Your task to perform on an android device: turn off sleep mode Image 0: 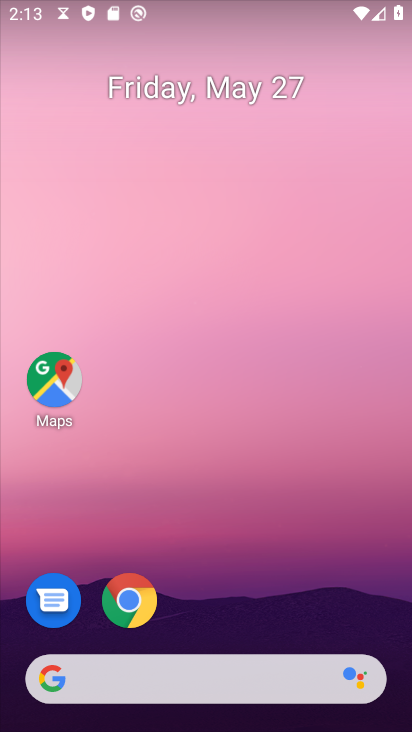
Step 0: drag from (253, 542) to (237, 4)
Your task to perform on an android device: turn off sleep mode Image 1: 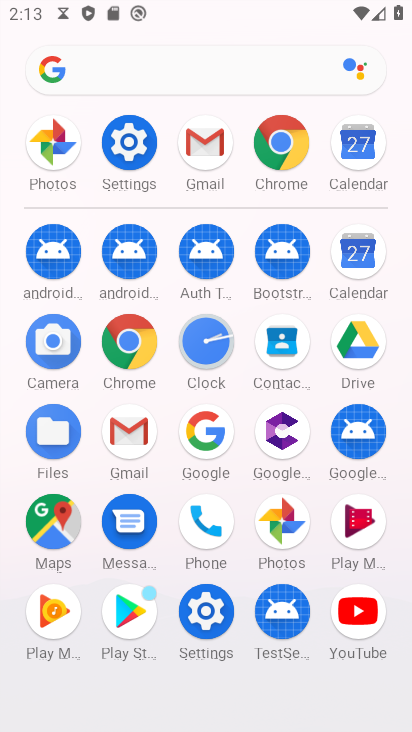
Step 1: drag from (14, 563) to (26, 216)
Your task to perform on an android device: turn off sleep mode Image 2: 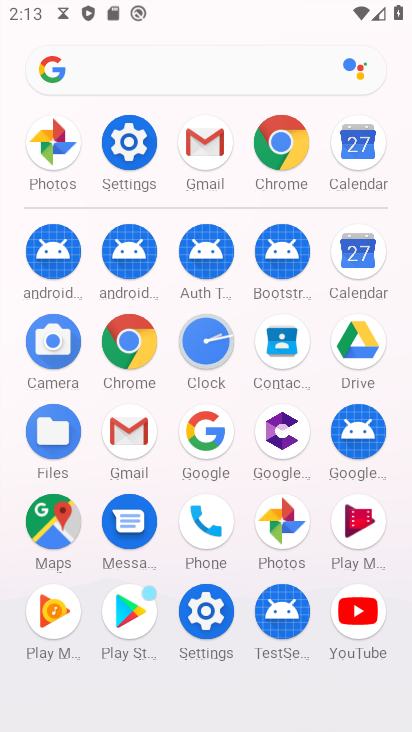
Step 2: click (205, 608)
Your task to perform on an android device: turn off sleep mode Image 3: 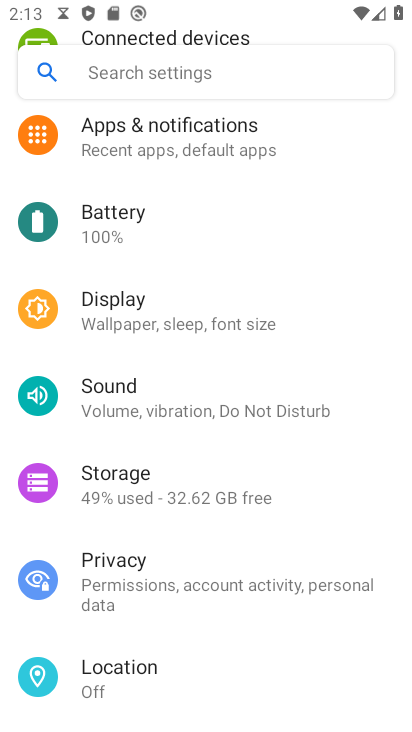
Step 3: drag from (297, 188) to (290, 628)
Your task to perform on an android device: turn off sleep mode Image 4: 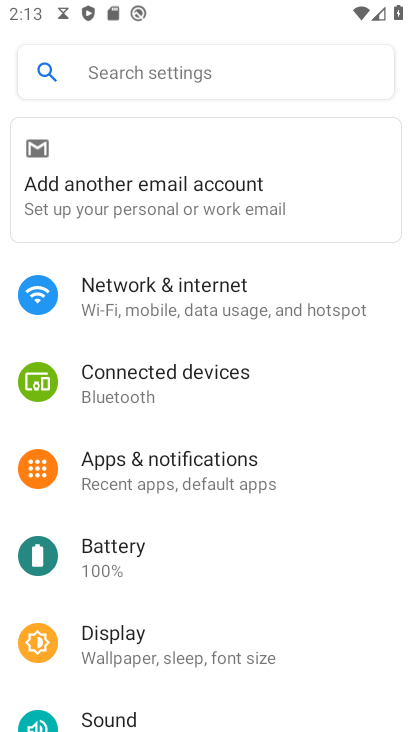
Step 4: click (163, 645)
Your task to perform on an android device: turn off sleep mode Image 5: 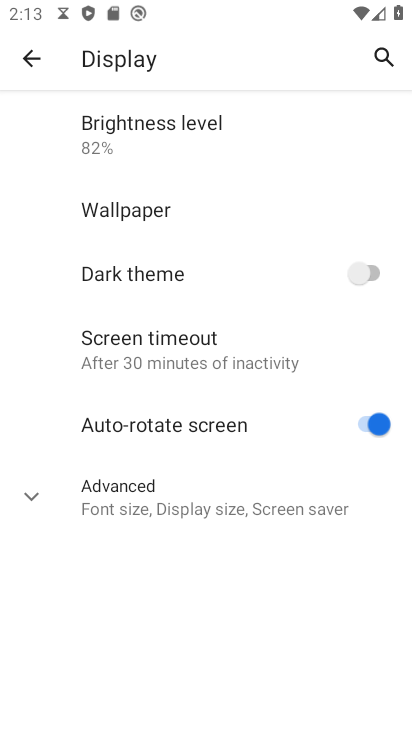
Step 5: click (54, 490)
Your task to perform on an android device: turn off sleep mode Image 6: 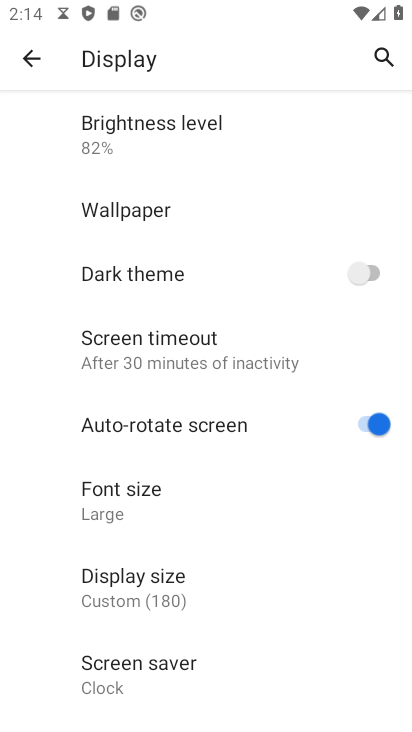
Step 6: task complete